Your task to perform on an android device: turn on location history Image 0: 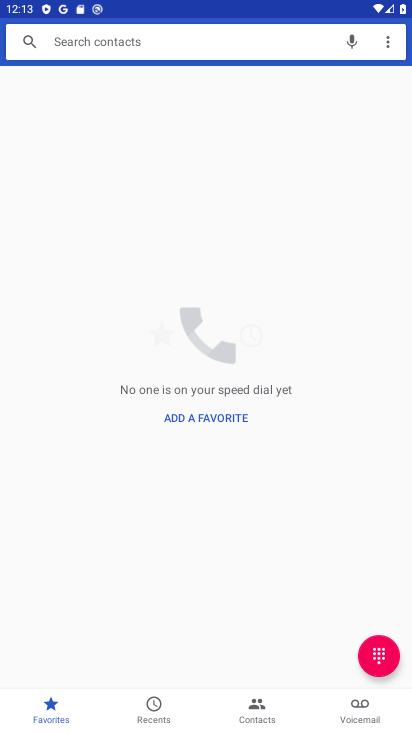
Step 0: drag from (212, 610) to (205, 208)
Your task to perform on an android device: turn on location history Image 1: 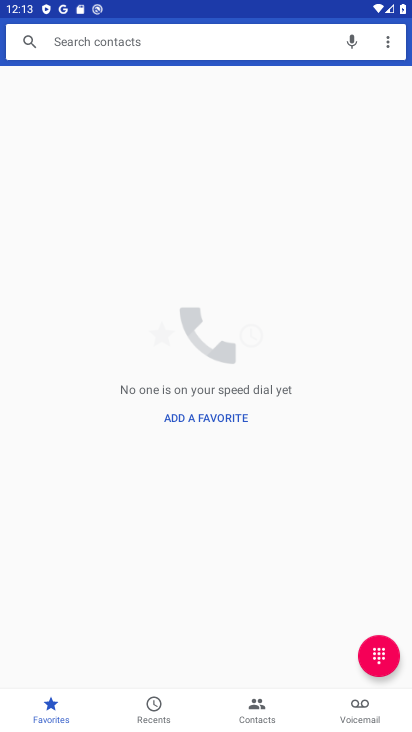
Step 1: drag from (208, 524) to (235, 334)
Your task to perform on an android device: turn on location history Image 2: 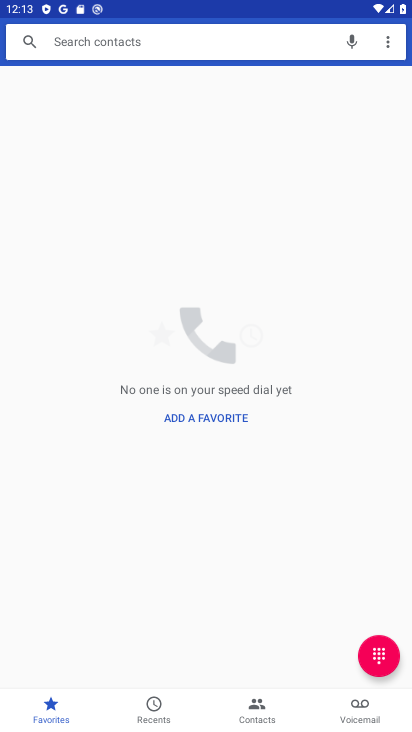
Step 2: click (258, 348)
Your task to perform on an android device: turn on location history Image 3: 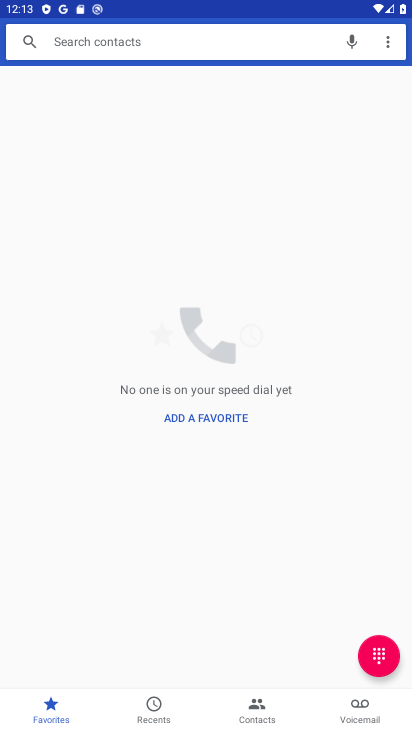
Step 3: click (262, 405)
Your task to perform on an android device: turn on location history Image 4: 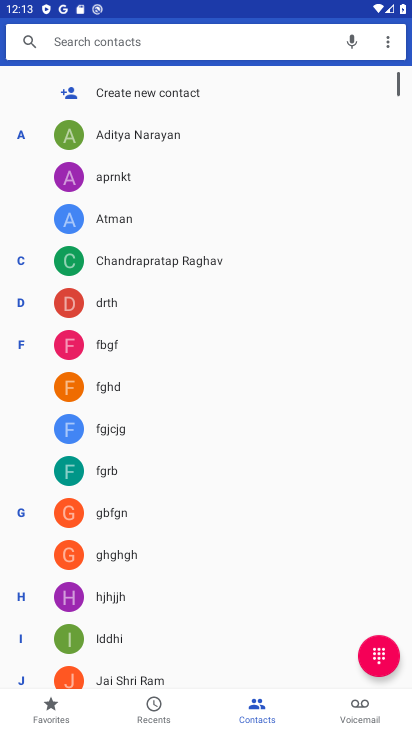
Step 4: press home button
Your task to perform on an android device: turn on location history Image 5: 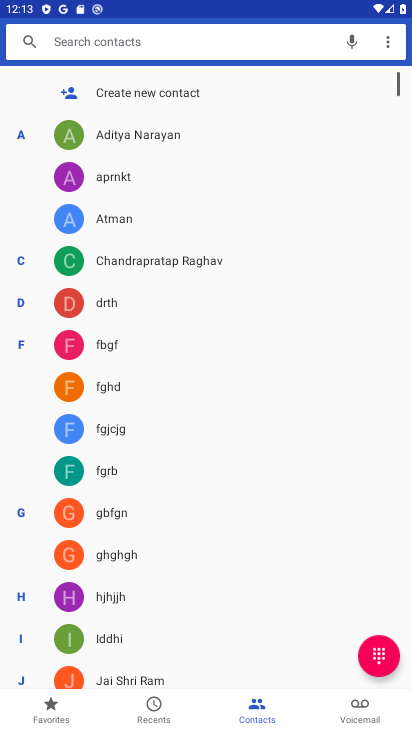
Step 5: click (281, 291)
Your task to perform on an android device: turn on location history Image 6: 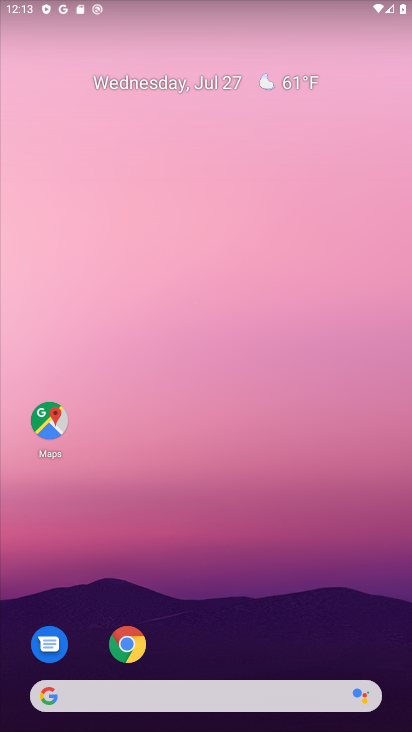
Step 6: press home button
Your task to perform on an android device: turn on location history Image 7: 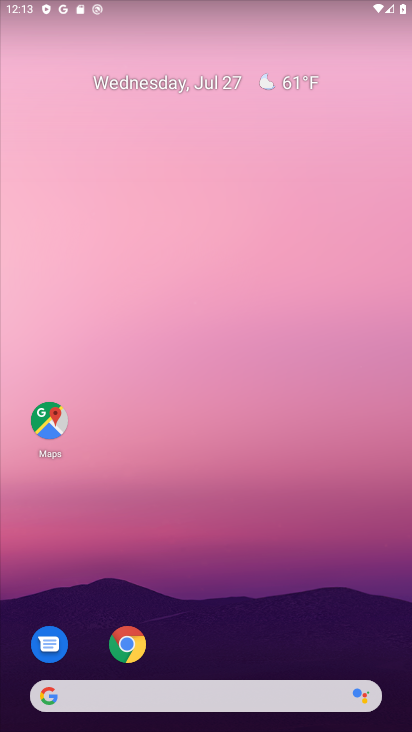
Step 7: press home button
Your task to perform on an android device: turn on location history Image 8: 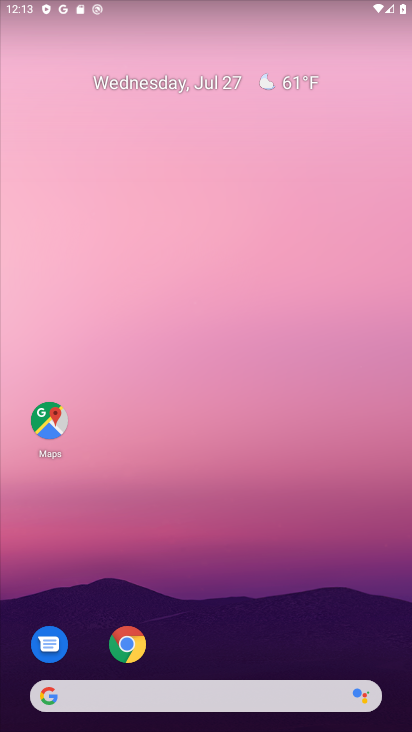
Step 8: drag from (177, 636) to (226, 272)
Your task to perform on an android device: turn on location history Image 9: 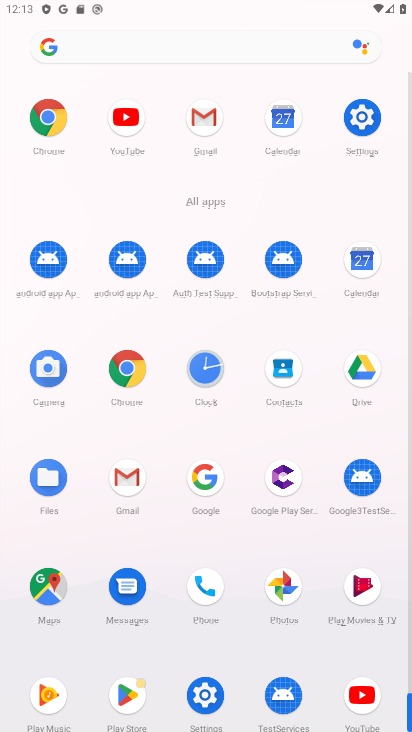
Step 9: drag from (229, 560) to (232, 289)
Your task to perform on an android device: turn on location history Image 10: 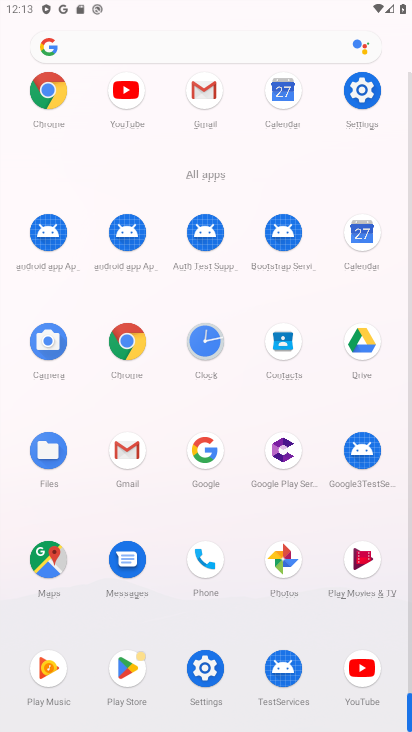
Step 10: drag from (227, 554) to (225, 234)
Your task to perform on an android device: turn on location history Image 11: 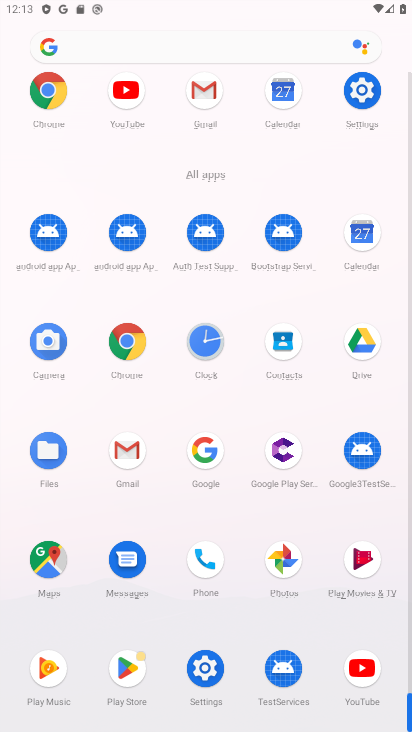
Step 11: click (199, 663)
Your task to perform on an android device: turn on location history Image 12: 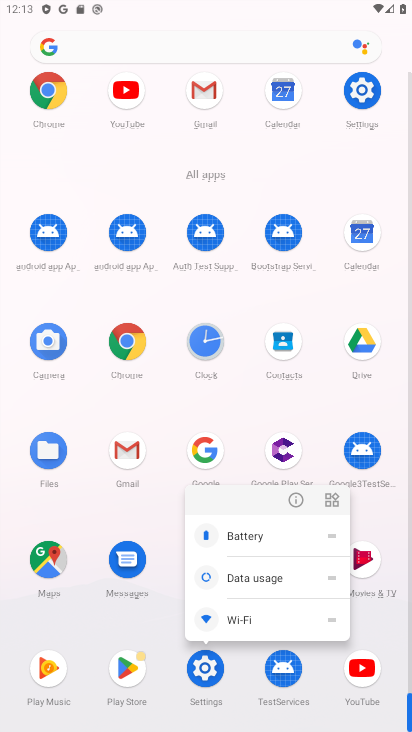
Step 12: click (293, 500)
Your task to perform on an android device: turn on location history Image 13: 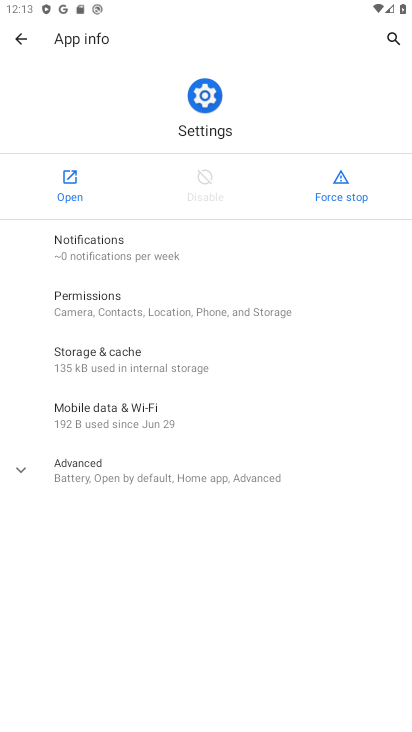
Step 13: click (54, 184)
Your task to perform on an android device: turn on location history Image 14: 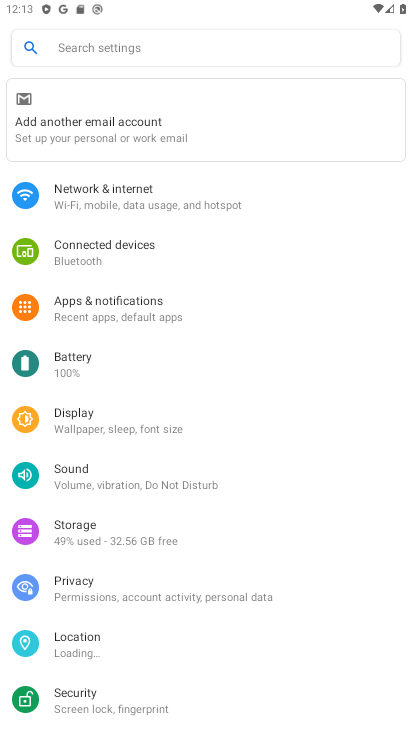
Step 14: click (89, 638)
Your task to perform on an android device: turn on location history Image 15: 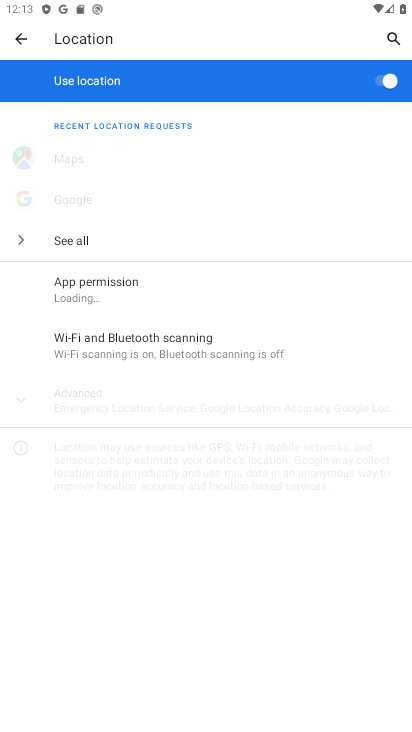
Step 15: drag from (123, 602) to (188, 167)
Your task to perform on an android device: turn on location history Image 16: 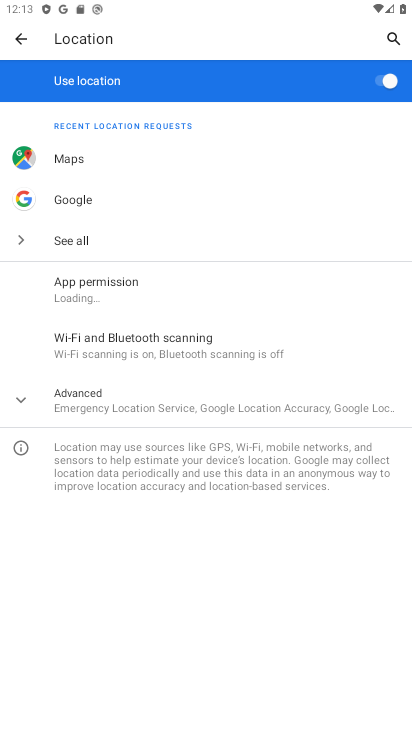
Step 16: drag from (146, 345) to (146, 730)
Your task to perform on an android device: turn on location history Image 17: 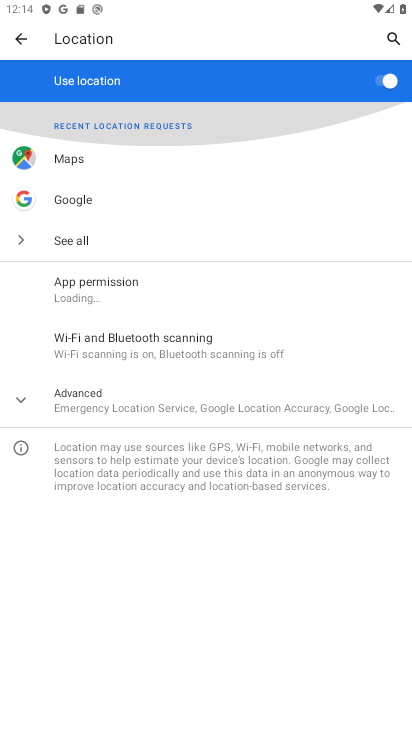
Step 17: drag from (212, 513) to (228, 192)
Your task to perform on an android device: turn on location history Image 18: 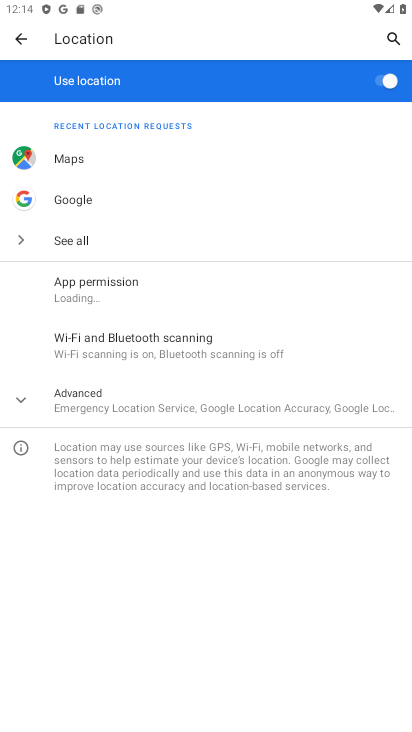
Step 18: drag from (196, 221) to (141, 680)
Your task to perform on an android device: turn on location history Image 19: 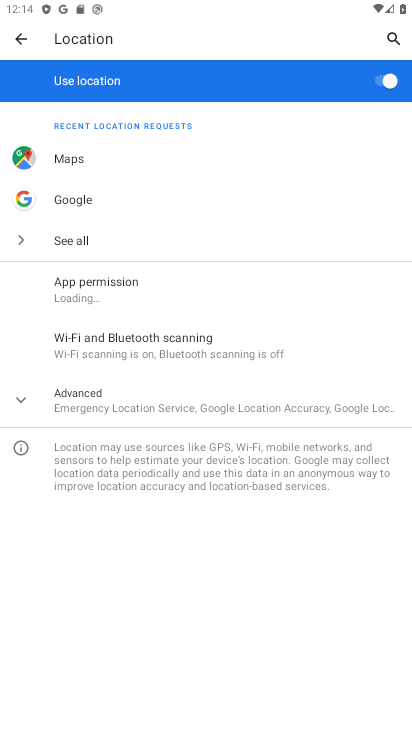
Step 19: click (148, 405)
Your task to perform on an android device: turn on location history Image 20: 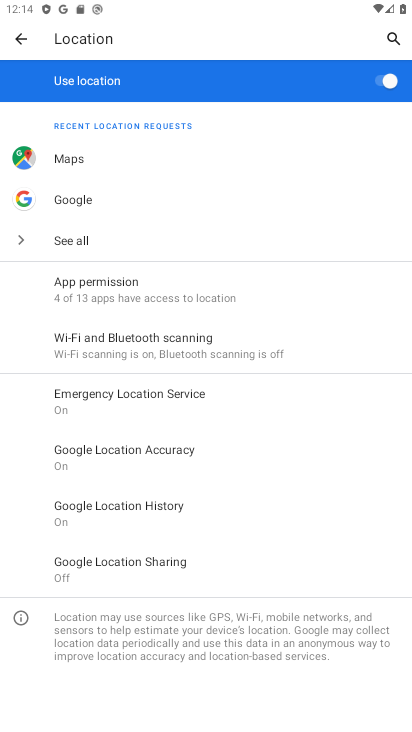
Step 20: drag from (140, 432) to (134, 731)
Your task to perform on an android device: turn on location history Image 21: 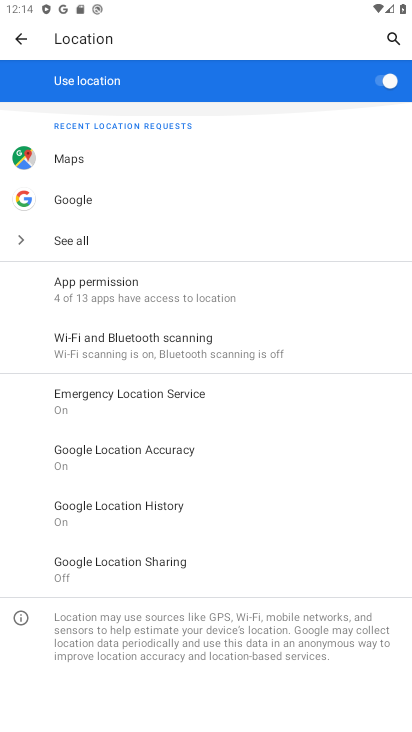
Step 21: drag from (214, 571) to (225, 266)
Your task to perform on an android device: turn on location history Image 22: 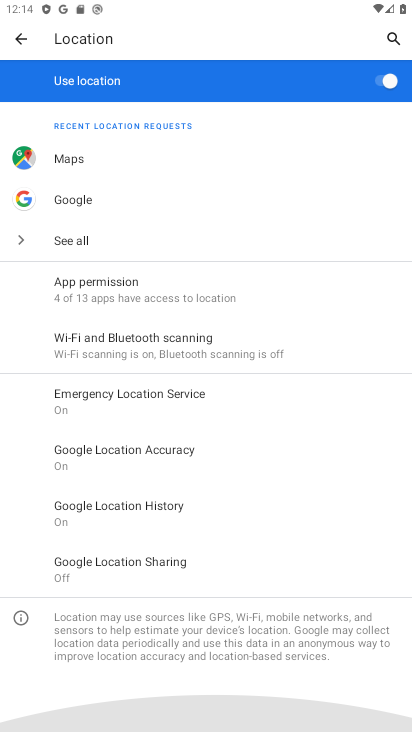
Step 22: drag from (222, 253) to (152, 702)
Your task to perform on an android device: turn on location history Image 23: 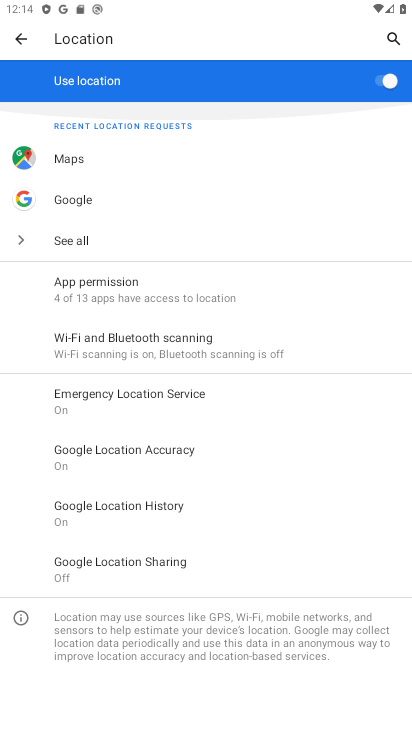
Step 23: drag from (149, 580) to (184, 344)
Your task to perform on an android device: turn on location history Image 24: 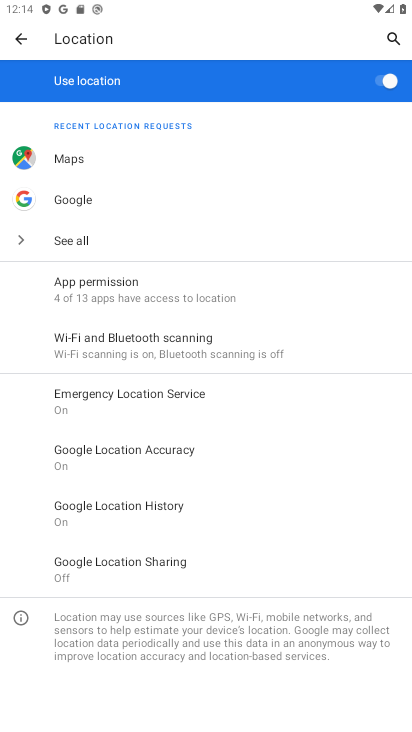
Step 24: click (165, 506)
Your task to perform on an android device: turn on location history Image 25: 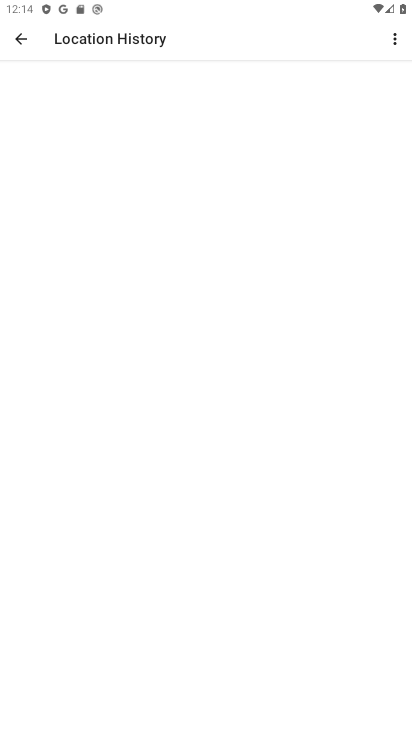
Step 25: task complete